Your task to perform on an android device: Open Google Image 0: 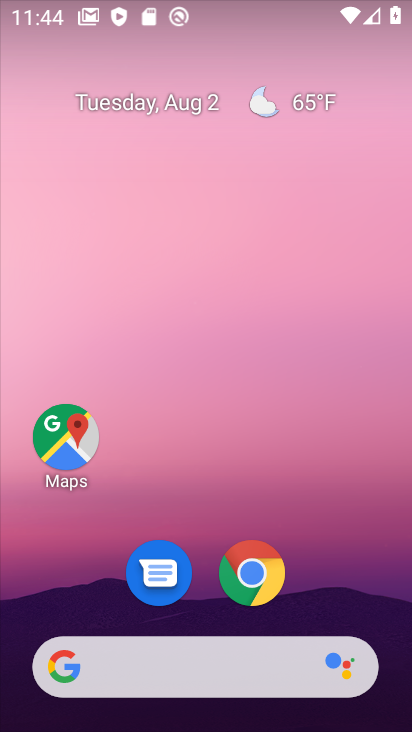
Step 0: drag from (206, 607) to (209, 158)
Your task to perform on an android device: Open Google Image 1: 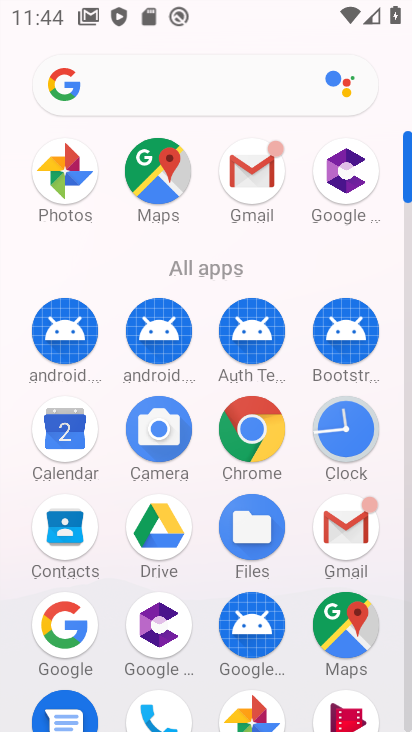
Step 1: click (59, 616)
Your task to perform on an android device: Open Google Image 2: 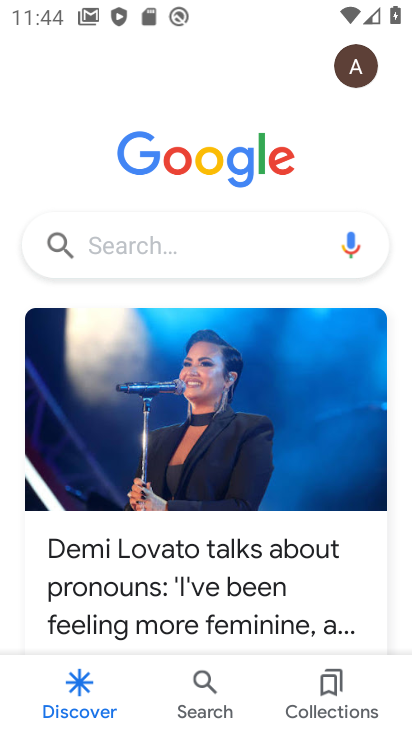
Step 2: task complete